Your task to perform on an android device: check the backup settings in the google photos Image 0: 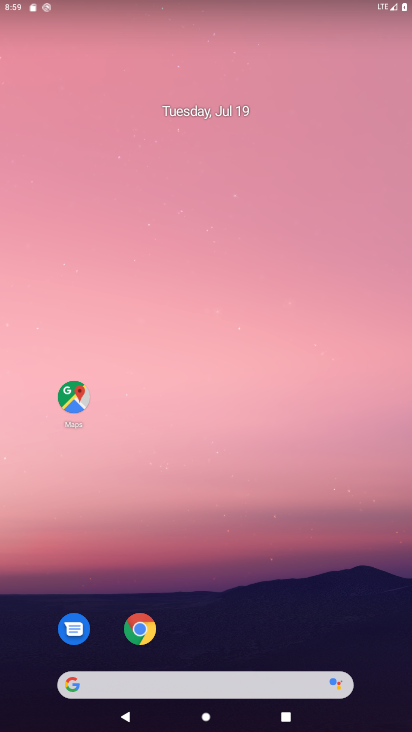
Step 0: drag from (220, 650) to (278, 3)
Your task to perform on an android device: check the backup settings in the google photos Image 1: 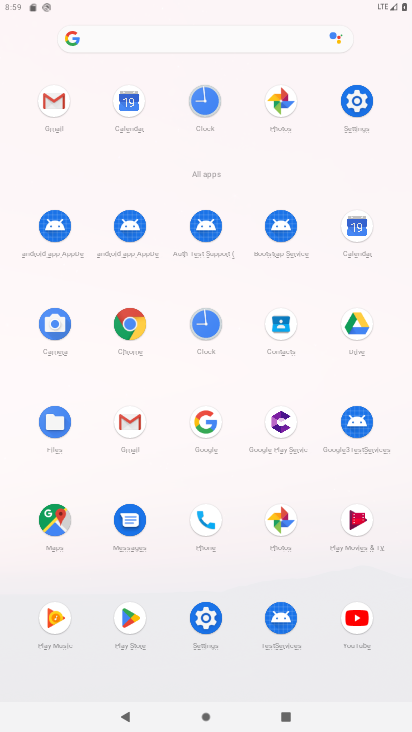
Step 1: click (279, 511)
Your task to perform on an android device: check the backup settings in the google photos Image 2: 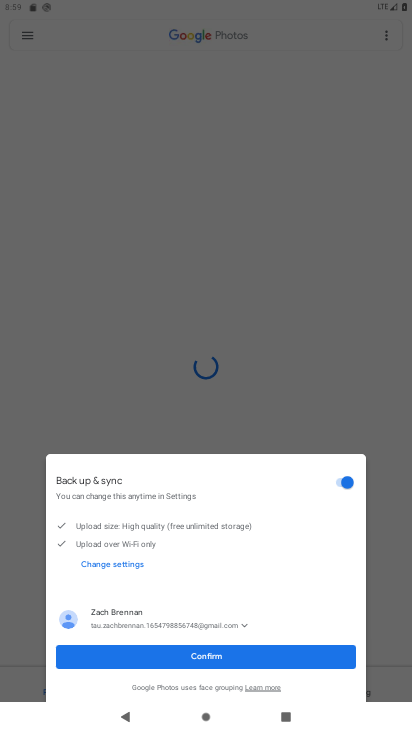
Step 2: click (195, 655)
Your task to perform on an android device: check the backup settings in the google photos Image 3: 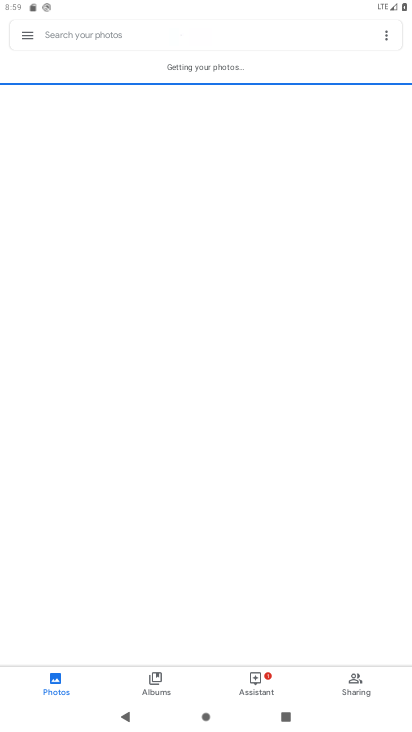
Step 3: click (22, 30)
Your task to perform on an android device: check the backup settings in the google photos Image 4: 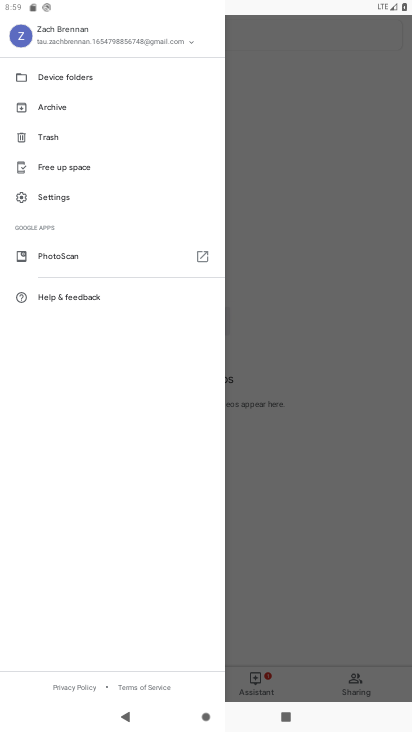
Step 4: click (35, 203)
Your task to perform on an android device: check the backup settings in the google photos Image 5: 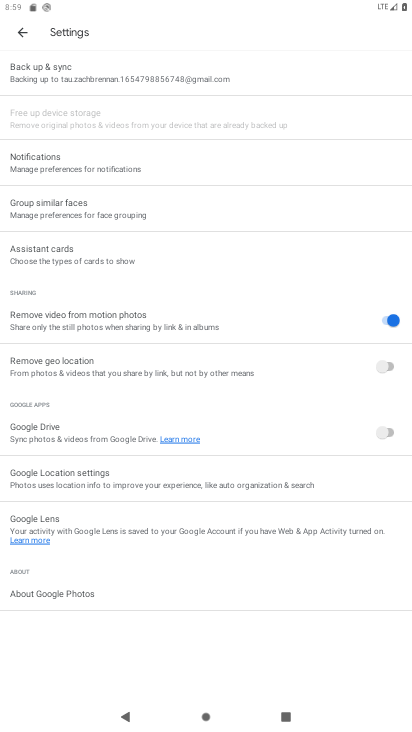
Step 5: click (76, 64)
Your task to perform on an android device: check the backup settings in the google photos Image 6: 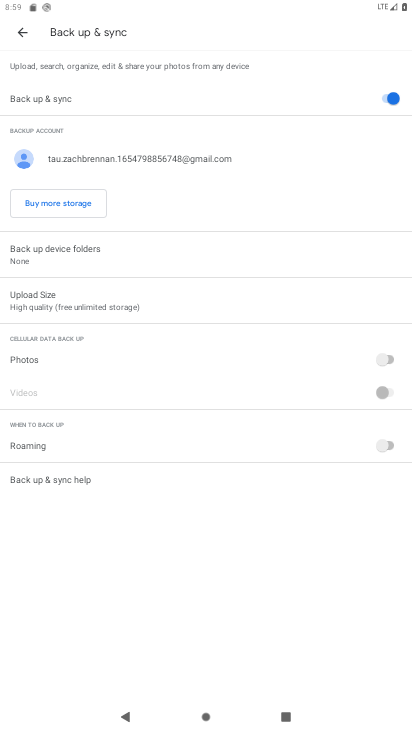
Step 6: task complete